Your task to perform on an android device: Open display settings Image 0: 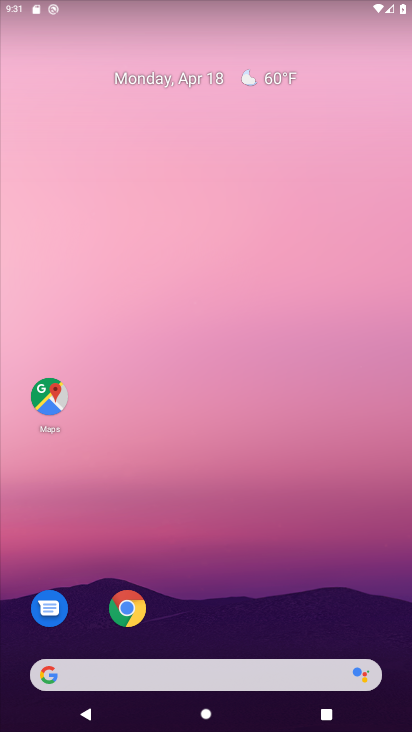
Step 0: click (323, 153)
Your task to perform on an android device: Open display settings Image 1: 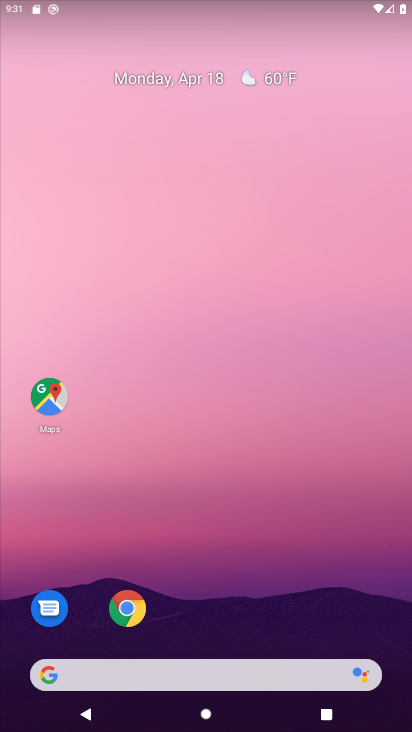
Step 1: drag from (314, 600) to (325, 89)
Your task to perform on an android device: Open display settings Image 2: 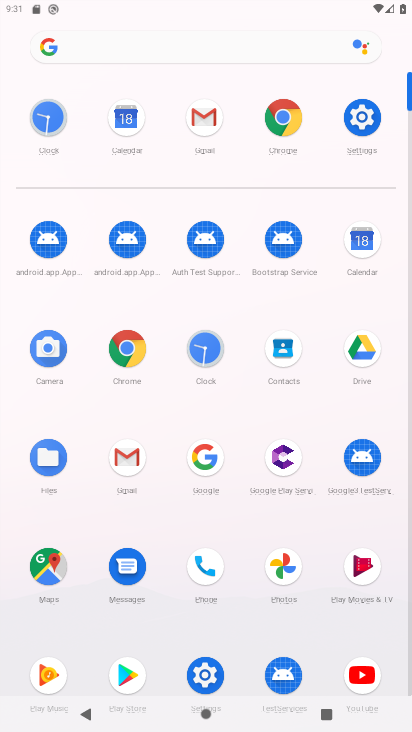
Step 2: click (191, 338)
Your task to perform on an android device: Open display settings Image 3: 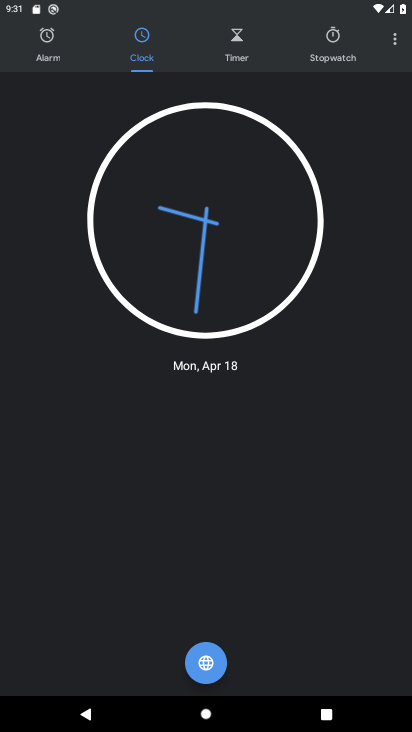
Step 3: click (400, 38)
Your task to perform on an android device: Open display settings Image 4: 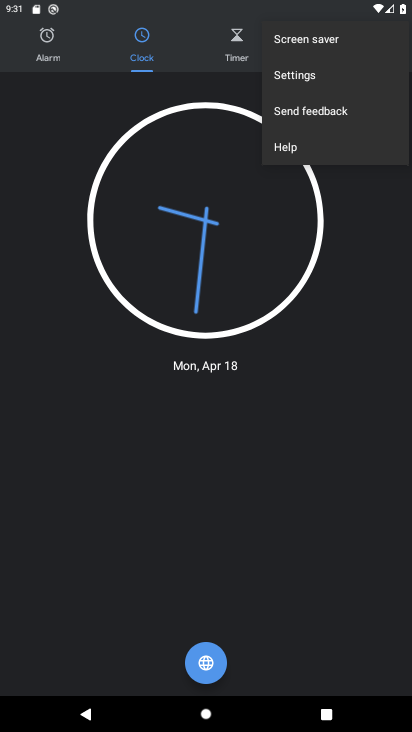
Step 4: click (305, 80)
Your task to perform on an android device: Open display settings Image 5: 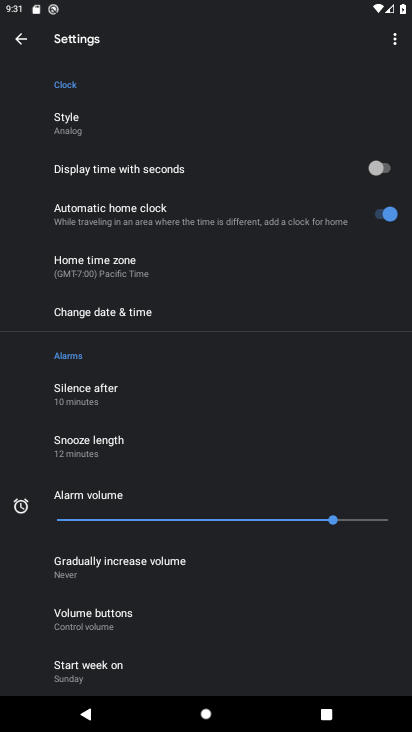
Step 5: click (90, 125)
Your task to perform on an android device: Open display settings Image 6: 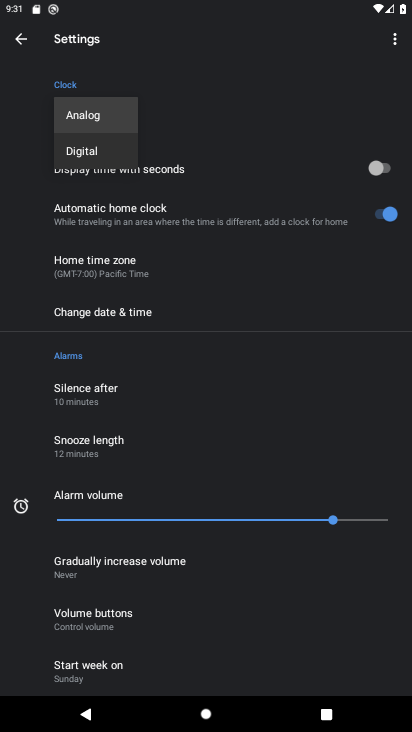
Step 6: click (94, 147)
Your task to perform on an android device: Open display settings Image 7: 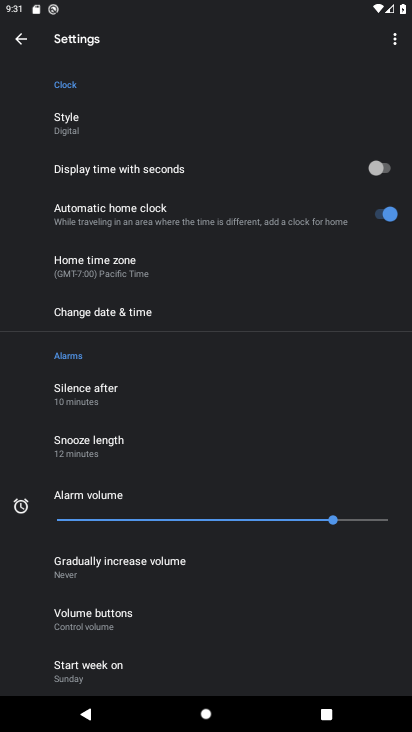
Step 7: task complete